Your task to perform on an android device: turn on showing notifications on the lock screen Image 0: 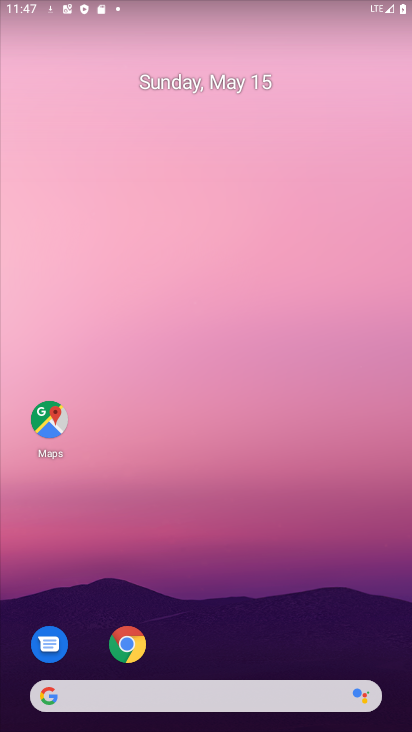
Step 0: drag from (198, 678) to (331, 355)
Your task to perform on an android device: turn on showing notifications on the lock screen Image 1: 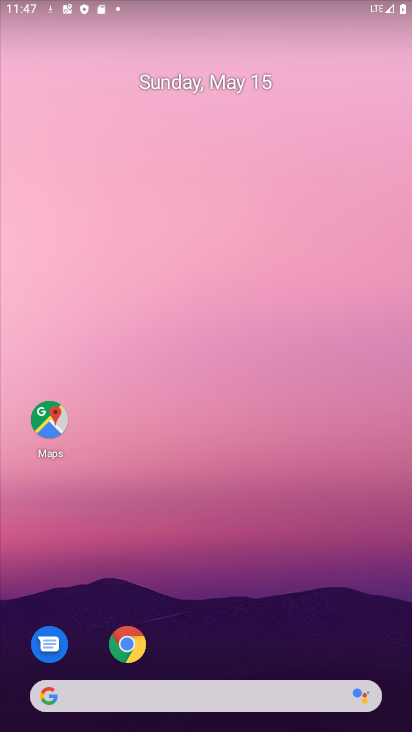
Step 1: drag from (244, 694) to (349, 413)
Your task to perform on an android device: turn on showing notifications on the lock screen Image 2: 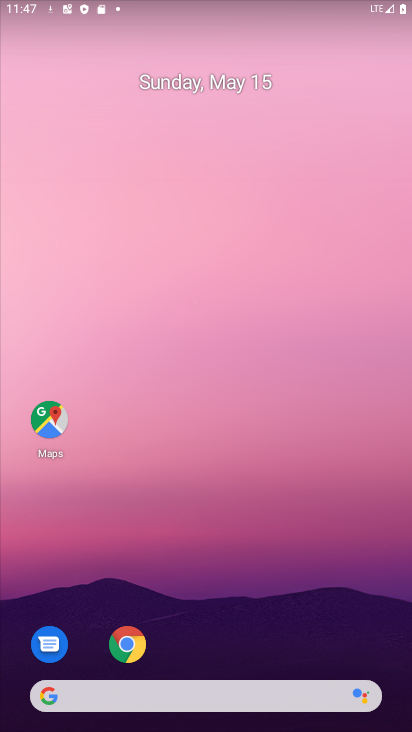
Step 2: drag from (278, 698) to (366, 140)
Your task to perform on an android device: turn on showing notifications on the lock screen Image 3: 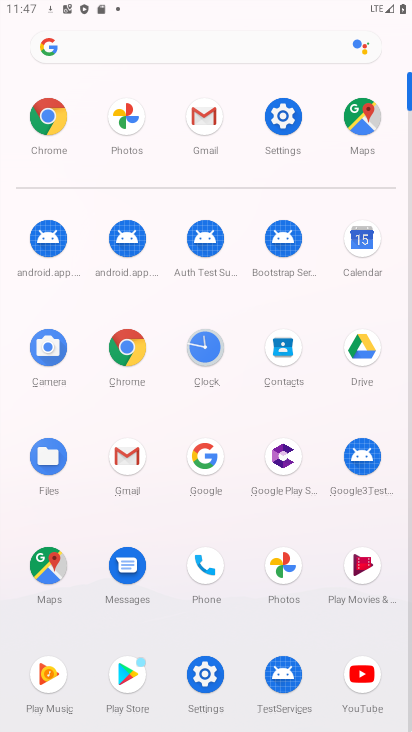
Step 3: click (276, 128)
Your task to perform on an android device: turn on showing notifications on the lock screen Image 4: 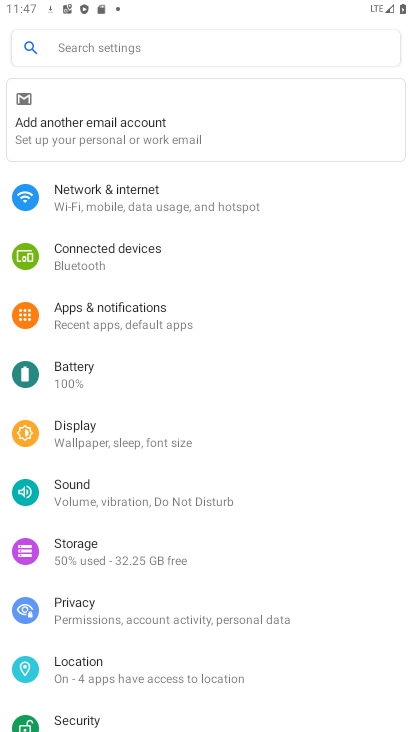
Step 4: click (163, 54)
Your task to perform on an android device: turn on showing notifications on the lock screen Image 5: 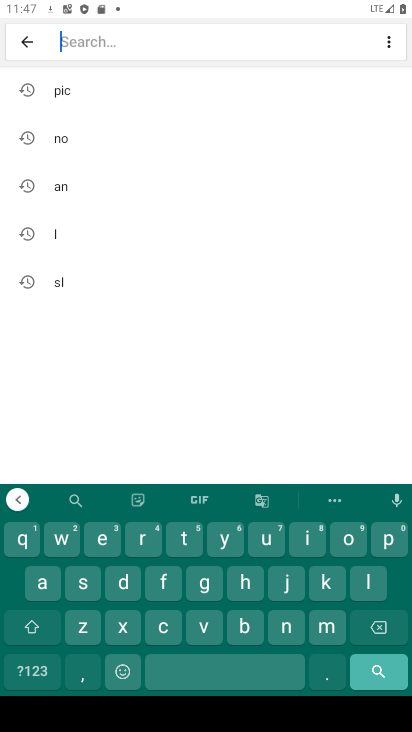
Step 5: click (292, 630)
Your task to perform on an android device: turn on showing notifications on the lock screen Image 6: 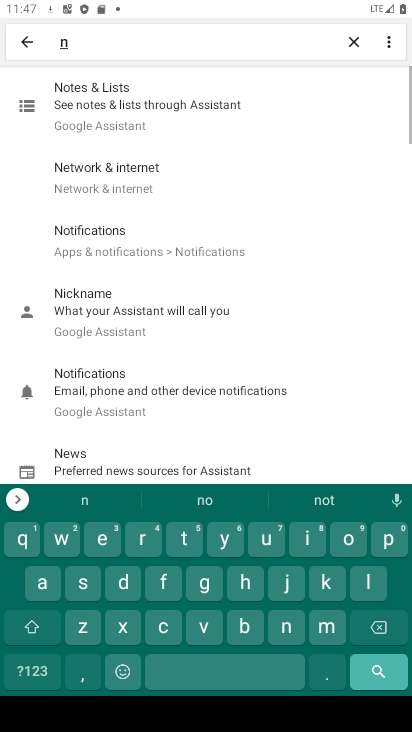
Step 6: click (350, 543)
Your task to perform on an android device: turn on showing notifications on the lock screen Image 7: 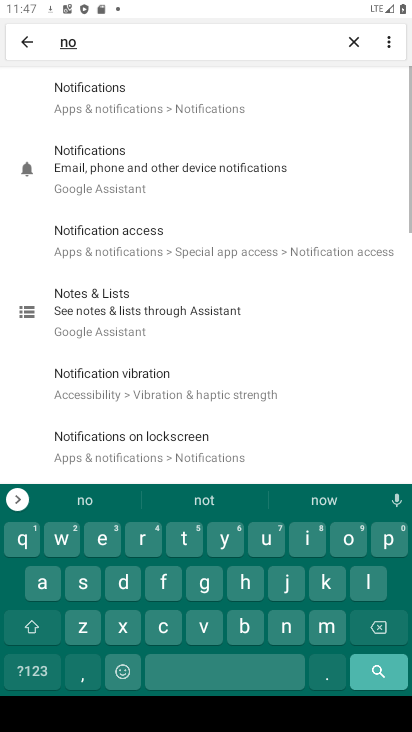
Step 7: click (151, 187)
Your task to perform on an android device: turn on showing notifications on the lock screen Image 8: 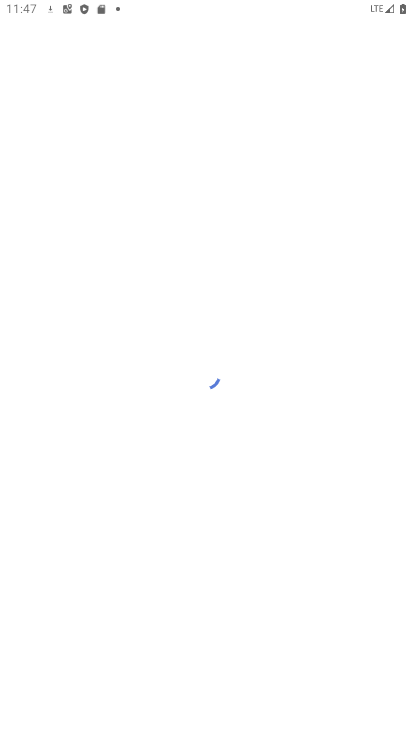
Step 8: click (24, 41)
Your task to perform on an android device: turn on showing notifications on the lock screen Image 9: 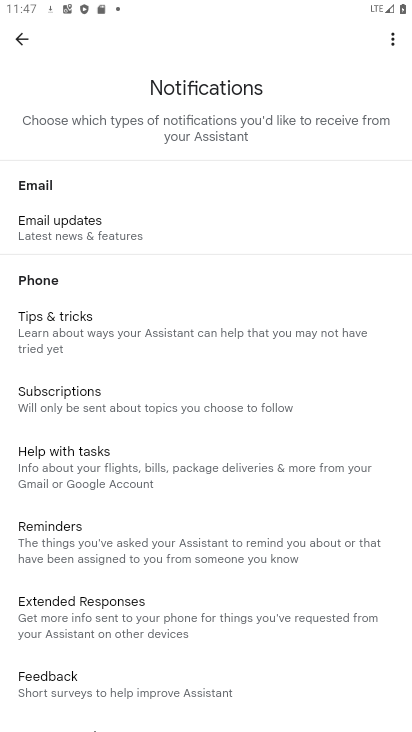
Step 9: task complete